Your task to perform on an android device: Open ESPN.com Image 0: 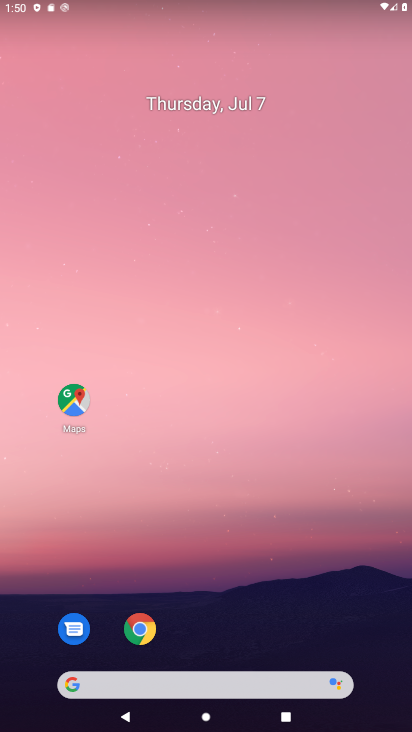
Step 0: drag from (210, 650) to (314, 90)
Your task to perform on an android device: Open ESPN.com Image 1: 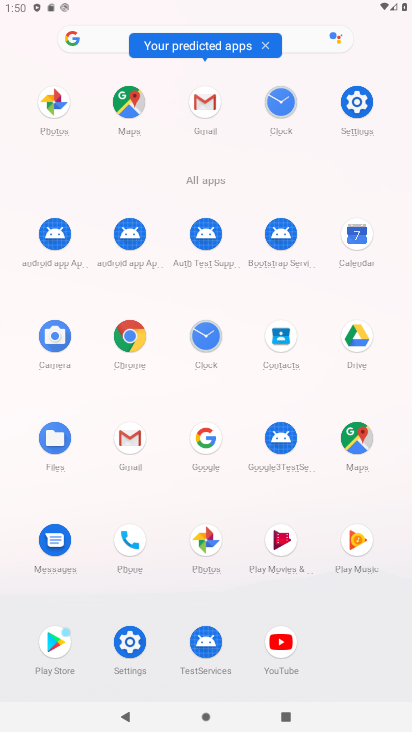
Step 1: click (126, 333)
Your task to perform on an android device: Open ESPN.com Image 2: 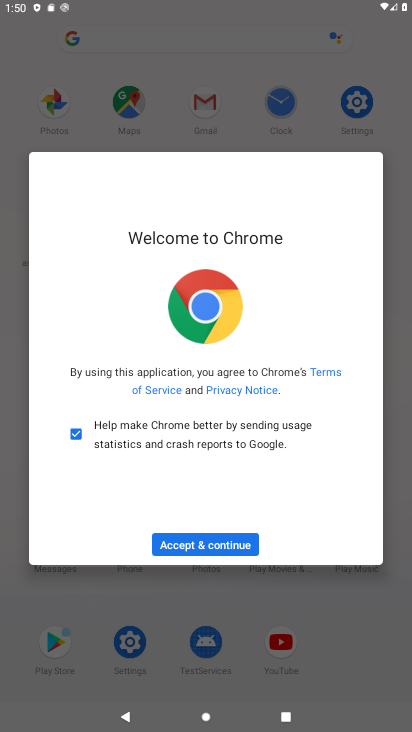
Step 2: click (222, 542)
Your task to perform on an android device: Open ESPN.com Image 3: 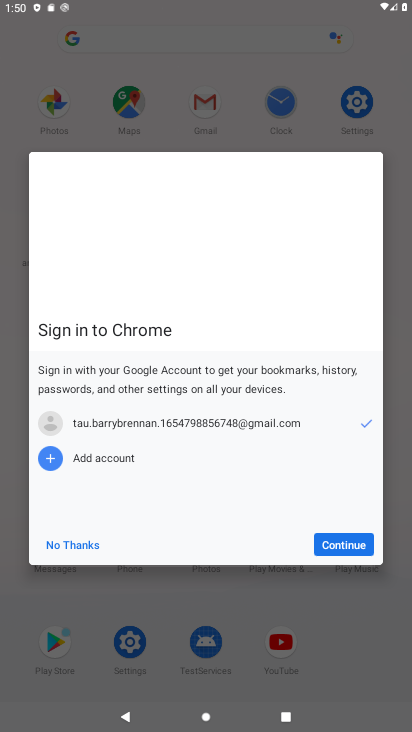
Step 3: click (316, 546)
Your task to perform on an android device: Open ESPN.com Image 4: 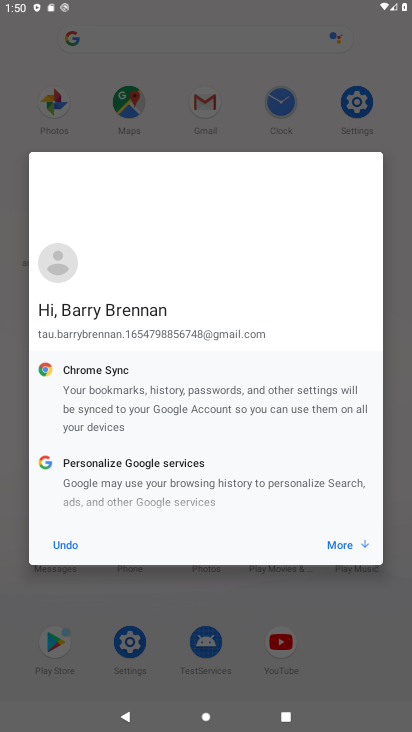
Step 4: click (336, 550)
Your task to perform on an android device: Open ESPN.com Image 5: 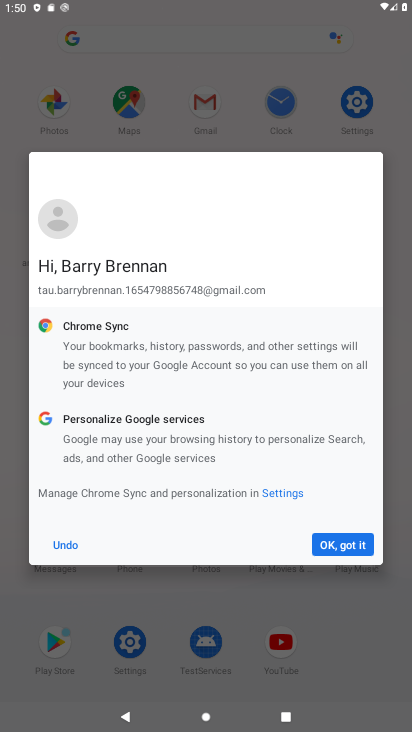
Step 5: click (337, 550)
Your task to perform on an android device: Open ESPN.com Image 6: 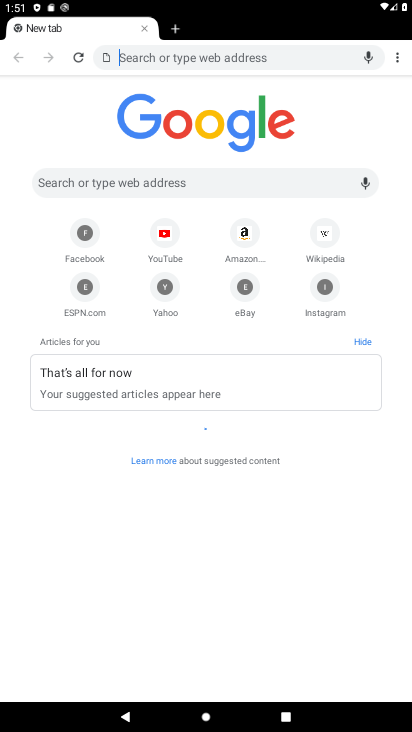
Step 6: click (85, 291)
Your task to perform on an android device: Open ESPN.com Image 7: 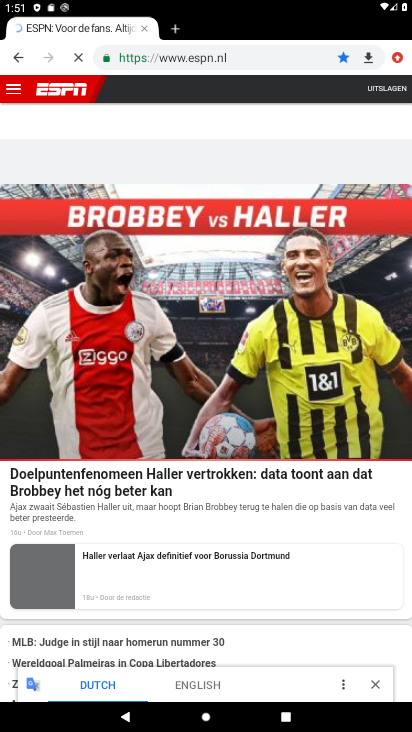
Step 7: task complete